Your task to perform on an android device: Toggle the flashlight Image 0: 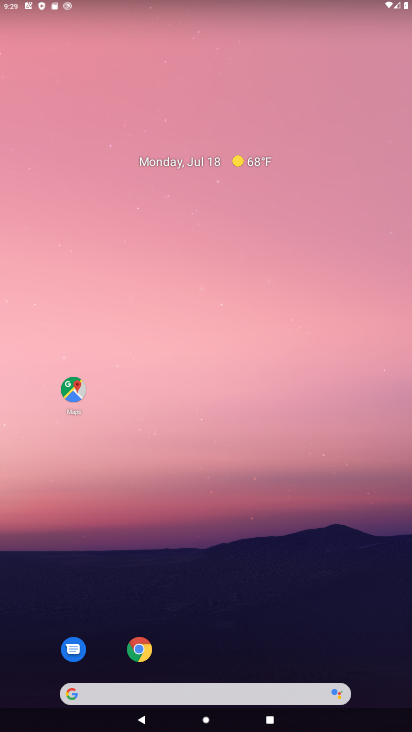
Step 0: drag from (176, 4) to (318, 556)
Your task to perform on an android device: Toggle the flashlight Image 1: 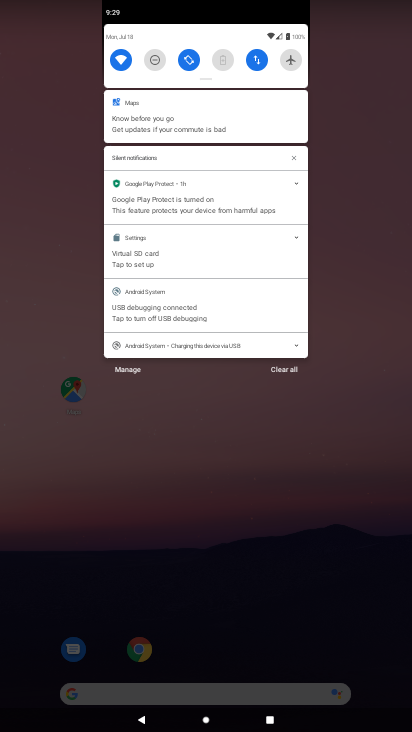
Step 1: task complete